Your task to perform on an android device: Go to internet settings Image 0: 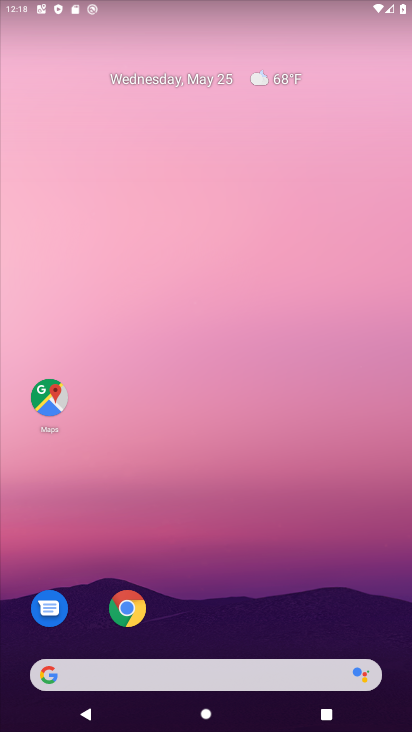
Step 0: drag from (246, 599) to (382, 21)
Your task to perform on an android device: Go to internet settings Image 1: 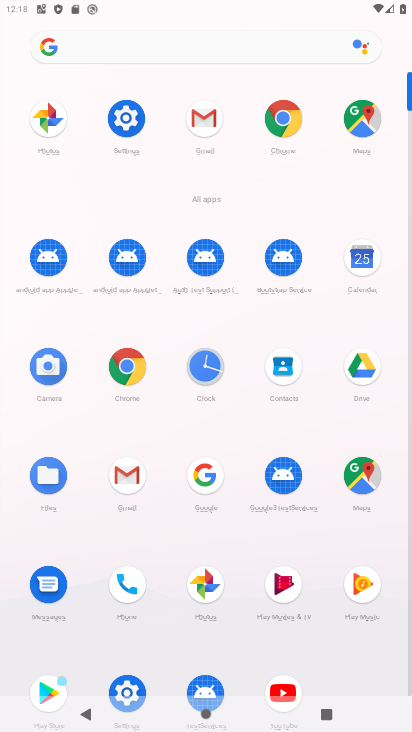
Step 1: click (125, 108)
Your task to perform on an android device: Go to internet settings Image 2: 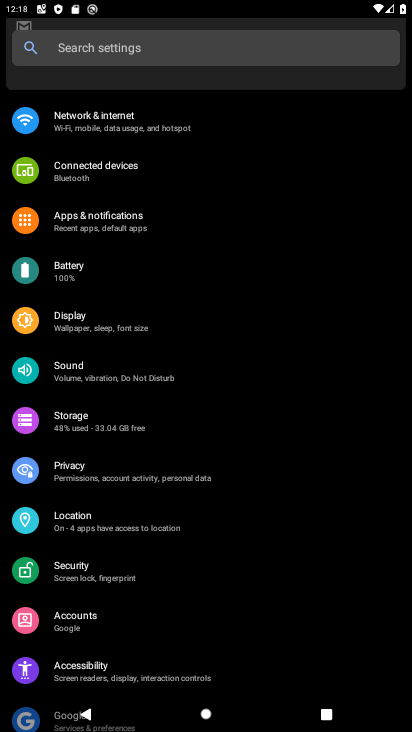
Step 2: click (144, 128)
Your task to perform on an android device: Go to internet settings Image 3: 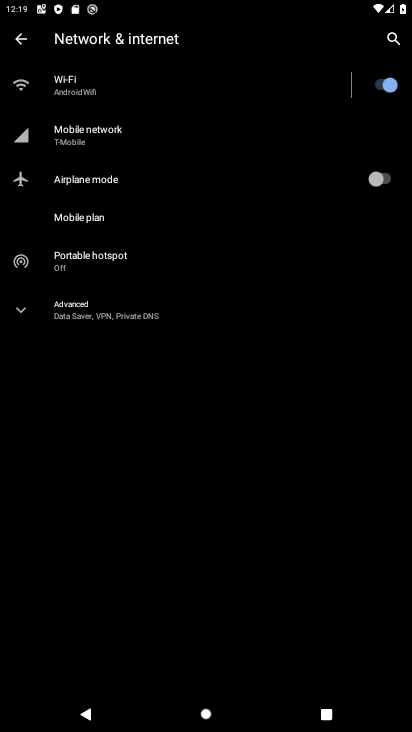
Step 3: task complete